Your task to perform on an android device: Go to accessibility settings Image 0: 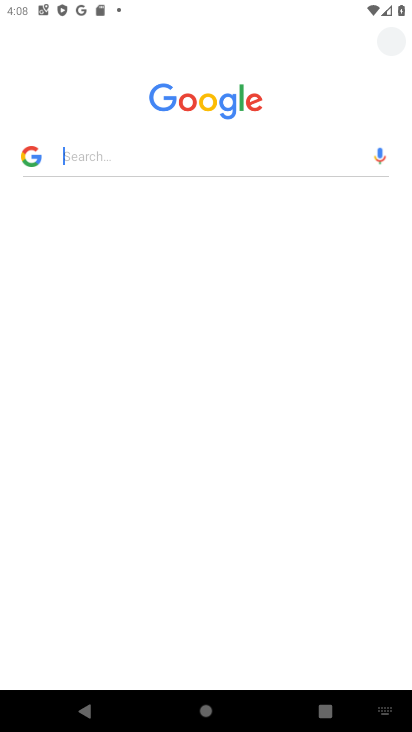
Step 0: drag from (208, 612) to (222, 277)
Your task to perform on an android device: Go to accessibility settings Image 1: 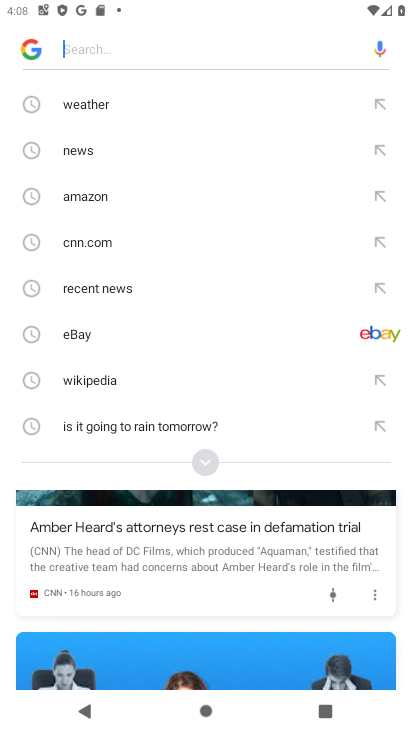
Step 1: press home button
Your task to perform on an android device: Go to accessibility settings Image 2: 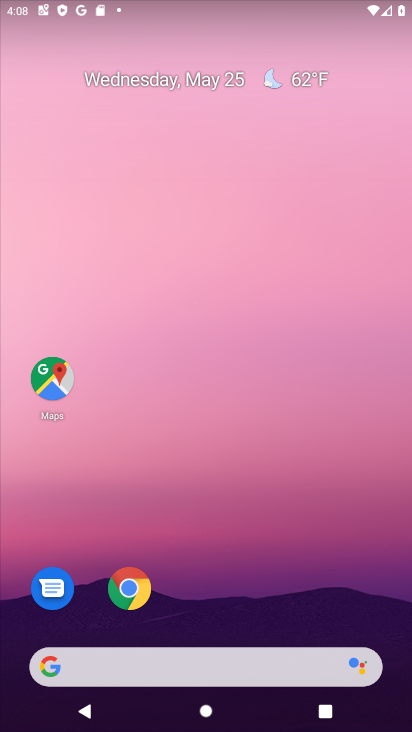
Step 2: drag from (202, 614) to (183, 175)
Your task to perform on an android device: Go to accessibility settings Image 3: 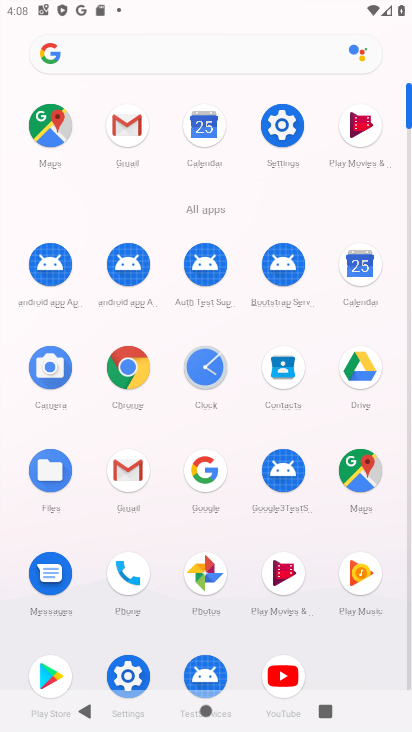
Step 3: click (288, 128)
Your task to perform on an android device: Go to accessibility settings Image 4: 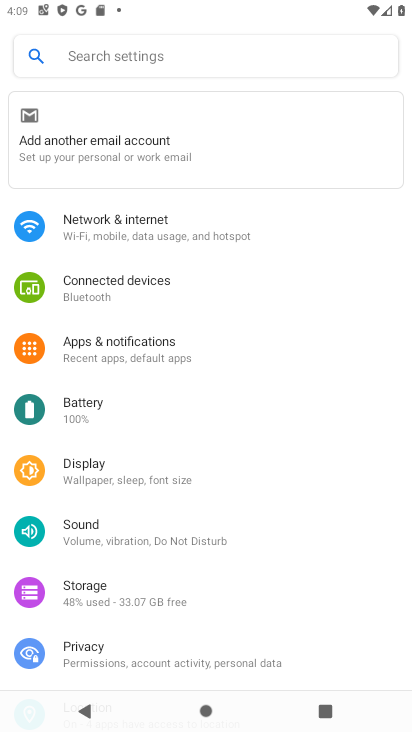
Step 4: drag from (166, 630) to (155, 197)
Your task to perform on an android device: Go to accessibility settings Image 5: 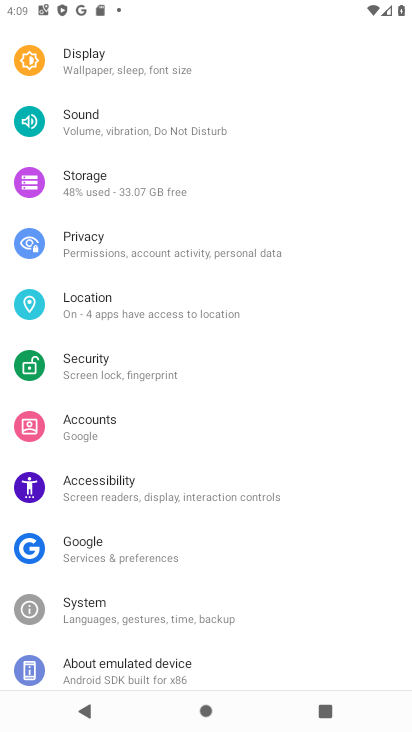
Step 5: click (146, 489)
Your task to perform on an android device: Go to accessibility settings Image 6: 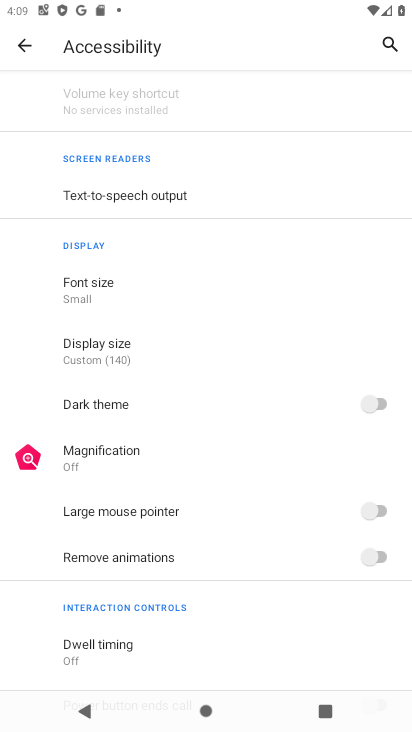
Step 6: task complete